Your task to perform on an android device: find photos in the google photos app Image 0: 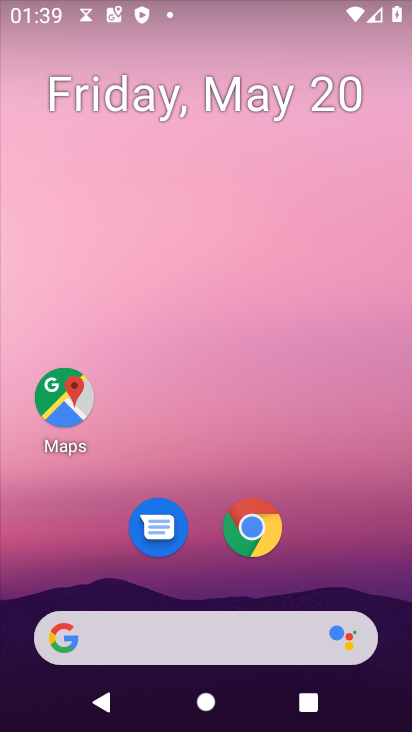
Step 0: drag from (184, 635) to (322, 93)
Your task to perform on an android device: find photos in the google photos app Image 1: 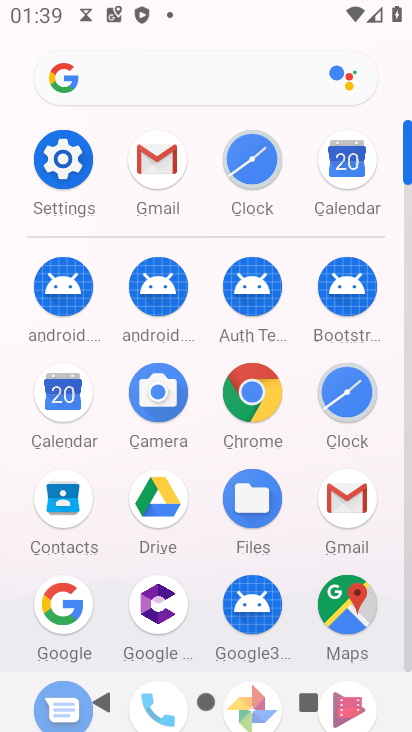
Step 1: drag from (213, 595) to (350, 157)
Your task to perform on an android device: find photos in the google photos app Image 2: 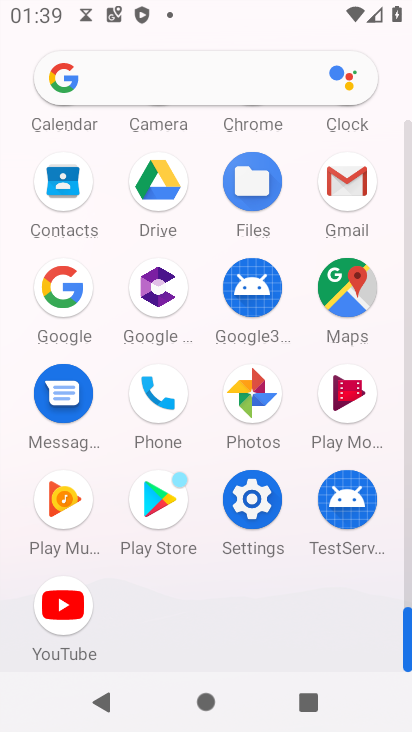
Step 2: click (253, 404)
Your task to perform on an android device: find photos in the google photos app Image 3: 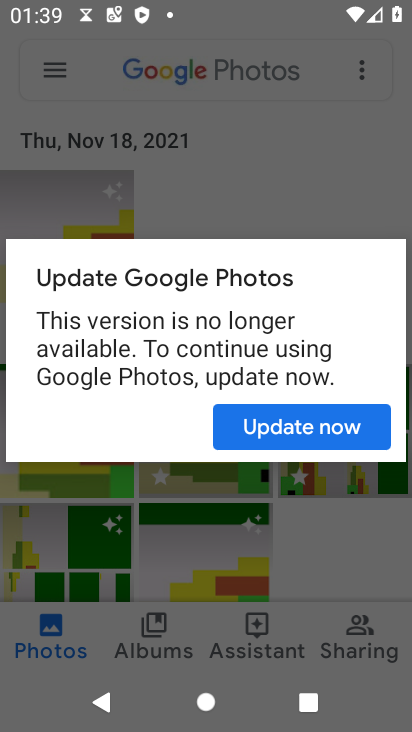
Step 3: click (295, 434)
Your task to perform on an android device: find photos in the google photos app Image 4: 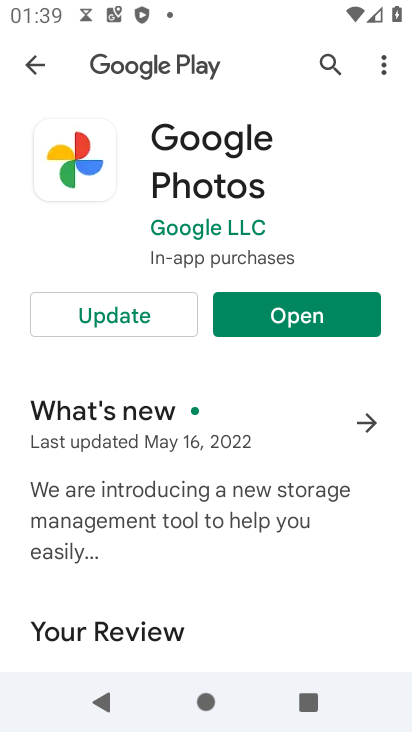
Step 4: click (315, 322)
Your task to perform on an android device: find photos in the google photos app Image 5: 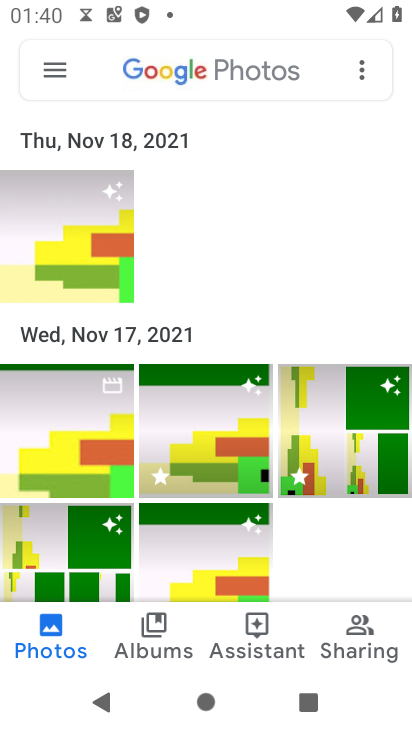
Step 5: task complete